Your task to perform on an android device: find which apps use the phone's location Image 0: 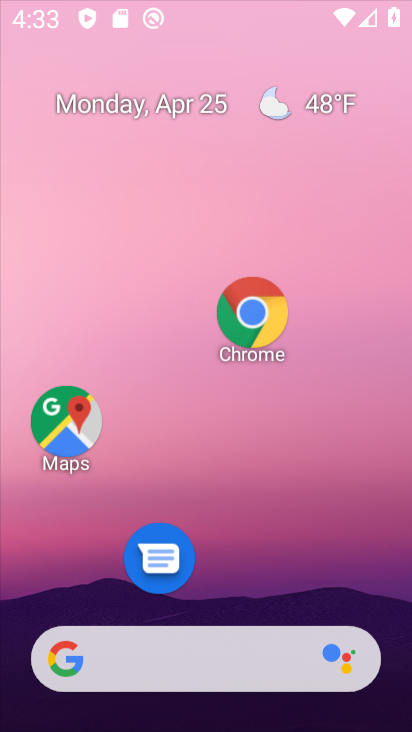
Step 0: drag from (395, 409) to (404, 107)
Your task to perform on an android device: find which apps use the phone's location Image 1: 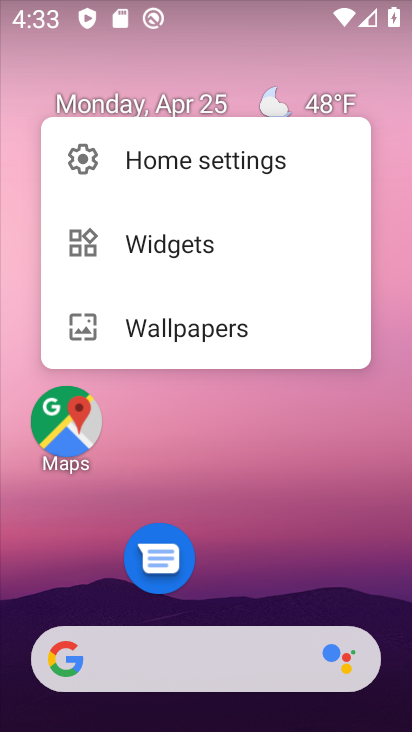
Step 1: click (348, 495)
Your task to perform on an android device: find which apps use the phone's location Image 2: 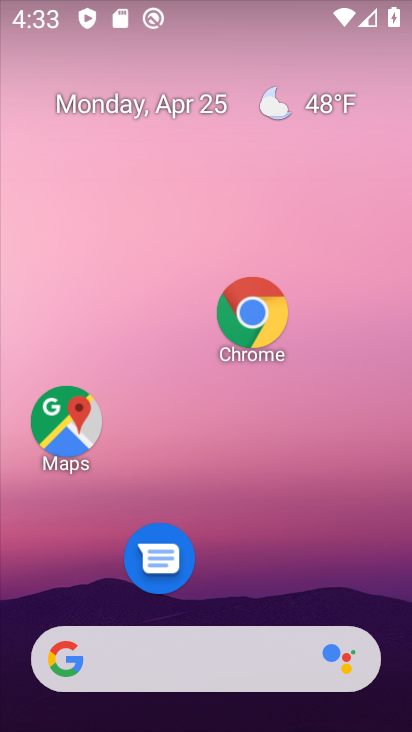
Step 2: drag from (354, 569) to (401, 171)
Your task to perform on an android device: find which apps use the phone's location Image 3: 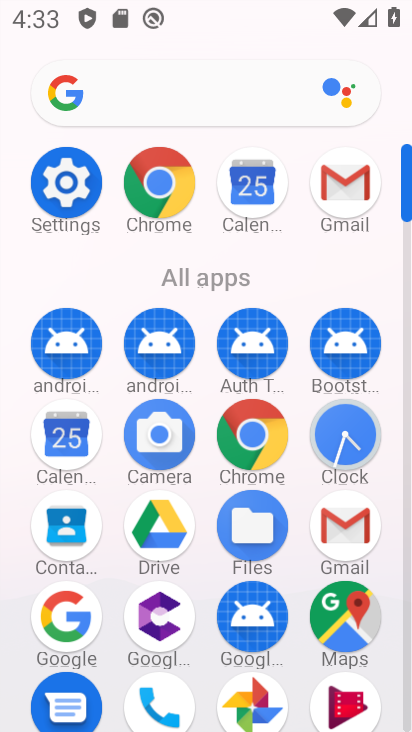
Step 3: click (63, 173)
Your task to perform on an android device: find which apps use the phone's location Image 4: 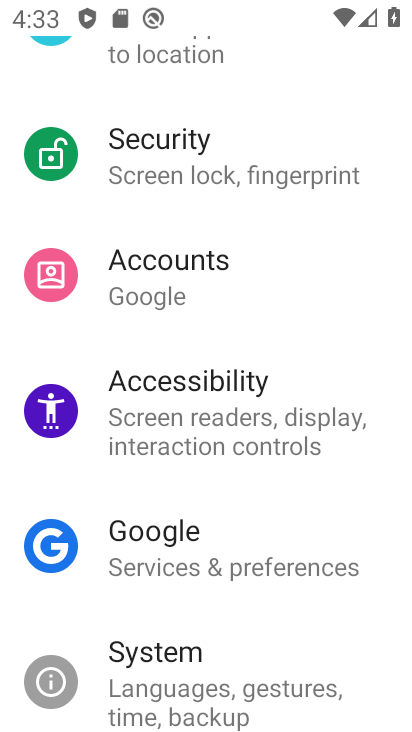
Step 4: drag from (264, 302) to (216, 645)
Your task to perform on an android device: find which apps use the phone's location Image 5: 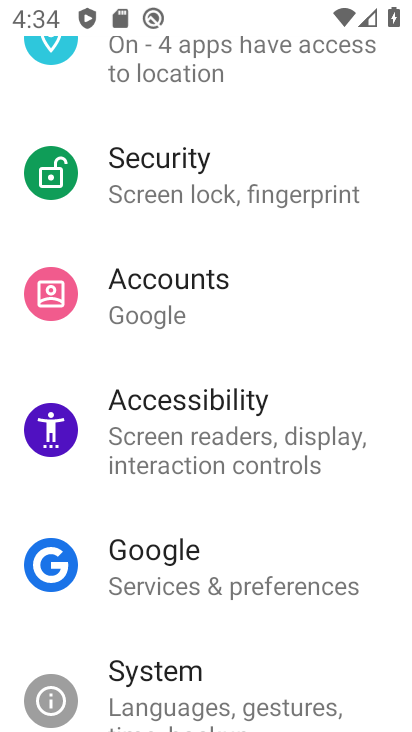
Step 5: drag from (257, 227) to (268, 551)
Your task to perform on an android device: find which apps use the phone's location Image 6: 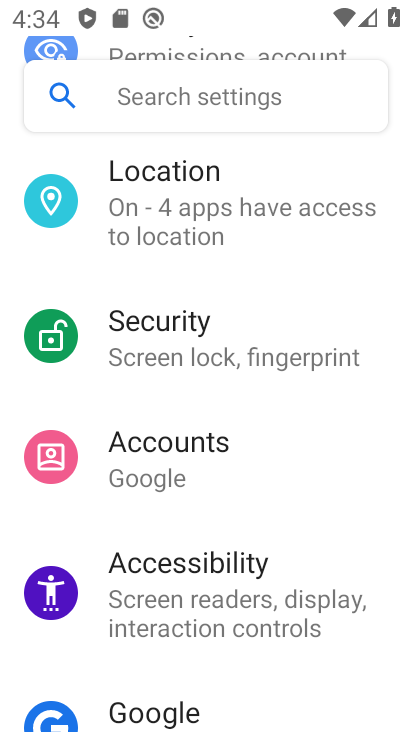
Step 6: drag from (281, 313) to (265, 653)
Your task to perform on an android device: find which apps use the phone's location Image 7: 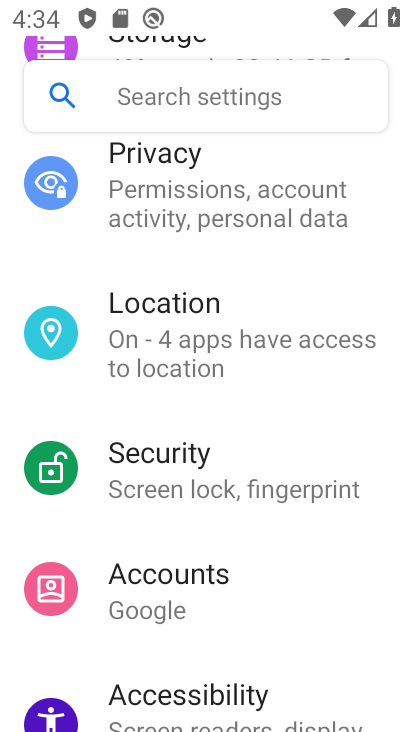
Step 7: drag from (290, 314) to (305, 660)
Your task to perform on an android device: find which apps use the phone's location Image 8: 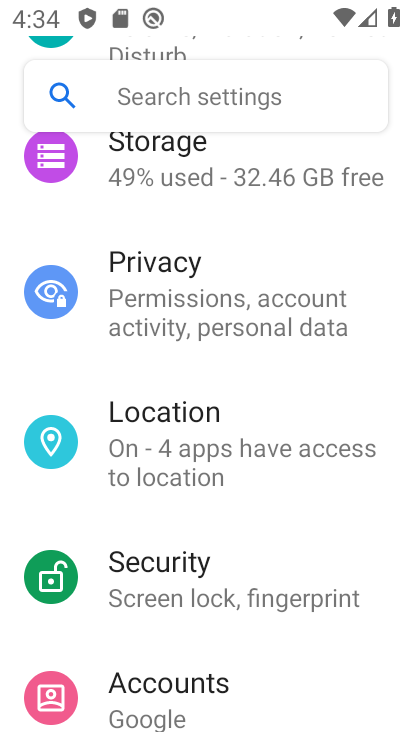
Step 8: drag from (260, 282) to (295, 653)
Your task to perform on an android device: find which apps use the phone's location Image 9: 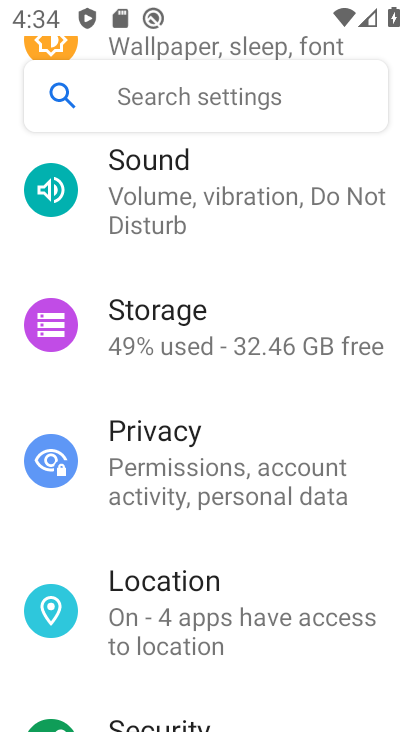
Step 9: drag from (236, 368) to (244, 676)
Your task to perform on an android device: find which apps use the phone's location Image 10: 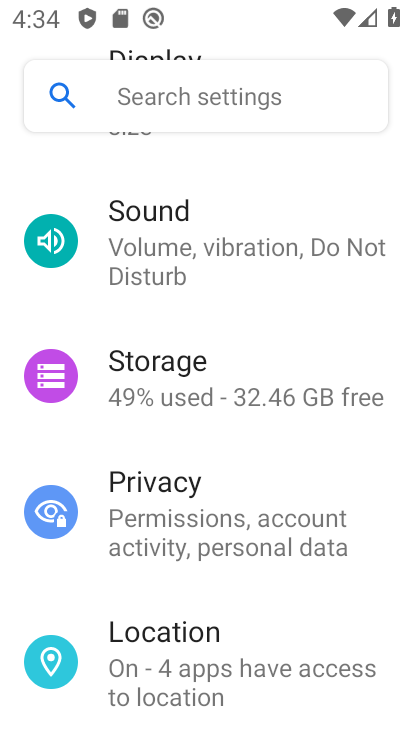
Step 10: drag from (271, 546) to (305, 222)
Your task to perform on an android device: find which apps use the phone's location Image 11: 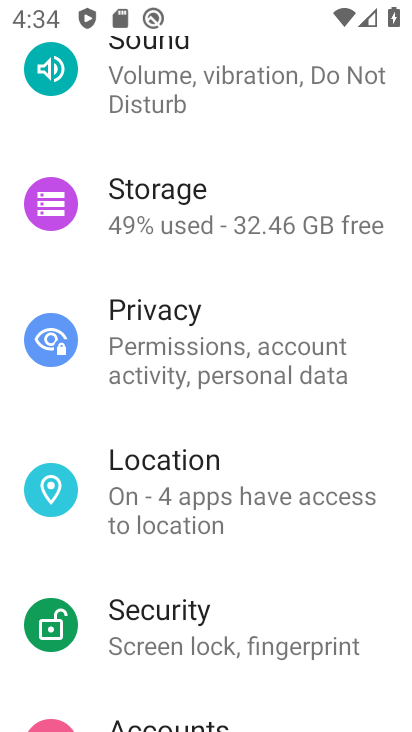
Step 11: click (239, 473)
Your task to perform on an android device: find which apps use the phone's location Image 12: 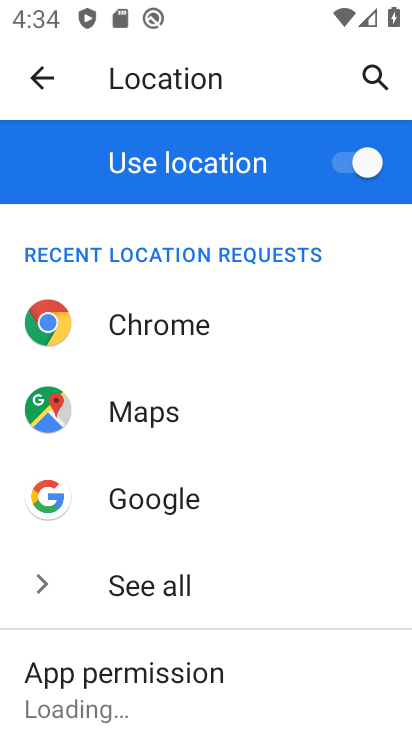
Step 12: drag from (207, 621) to (210, 274)
Your task to perform on an android device: find which apps use the phone's location Image 13: 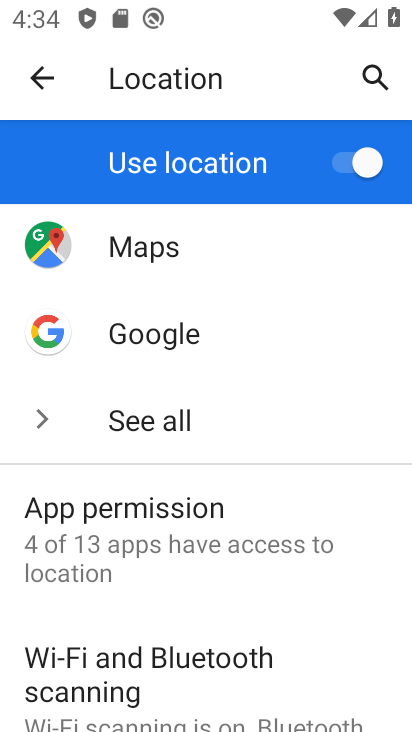
Step 13: drag from (234, 555) to (266, 311)
Your task to perform on an android device: find which apps use the phone's location Image 14: 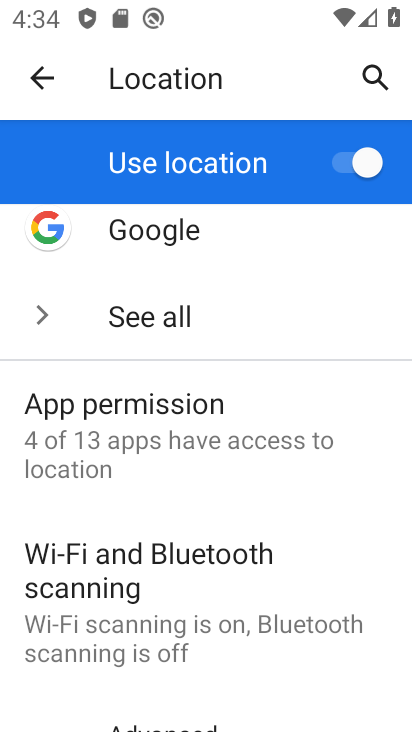
Step 14: click (164, 416)
Your task to perform on an android device: find which apps use the phone's location Image 15: 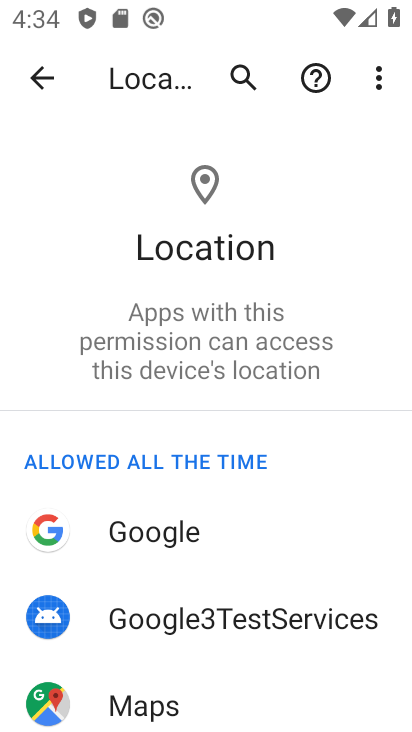
Step 15: task complete